Your task to perform on an android device: empty trash in google photos Image 0: 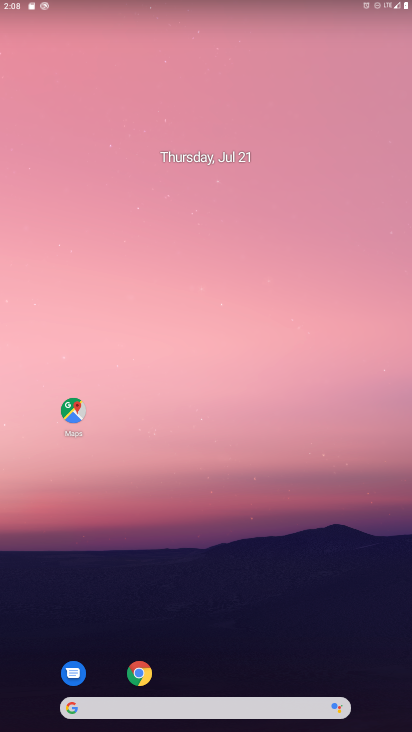
Step 0: drag from (304, 692) to (290, 260)
Your task to perform on an android device: empty trash in google photos Image 1: 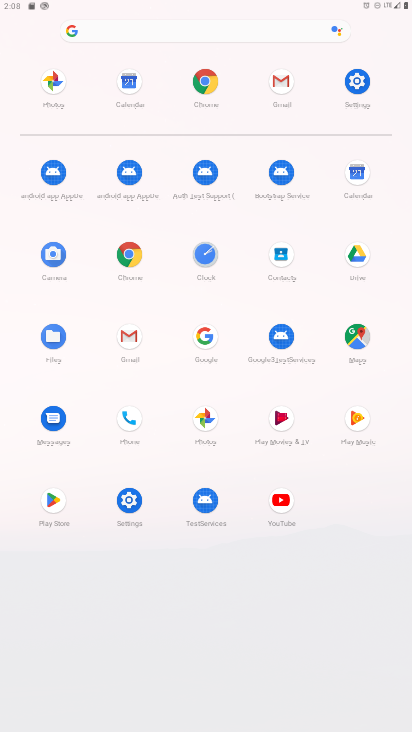
Step 1: click (203, 423)
Your task to perform on an android device: empty trash in google photos Image 2: 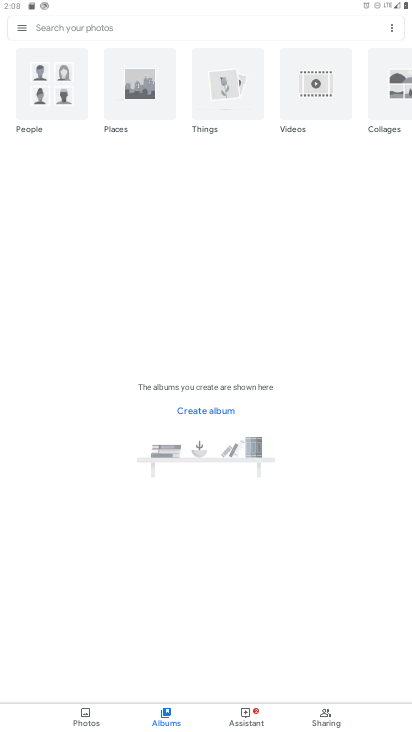
Step 2: click (26, 23)
Your task to perform on an android device: empty trash in google photos Image 3: 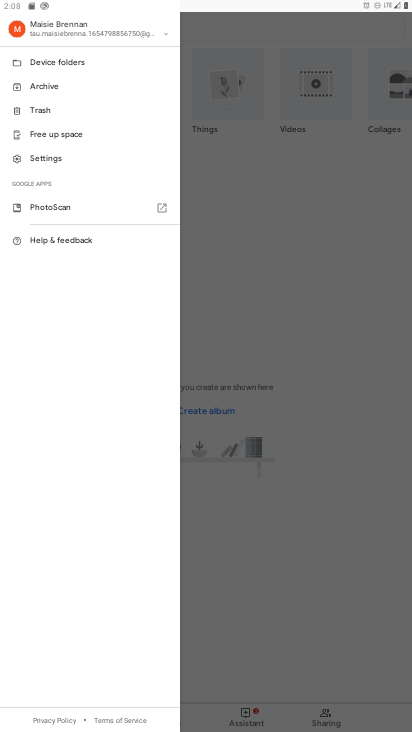
Step 3: click (55, 115)
Your task to perform on an android device: empty trash in google photos Image 4: 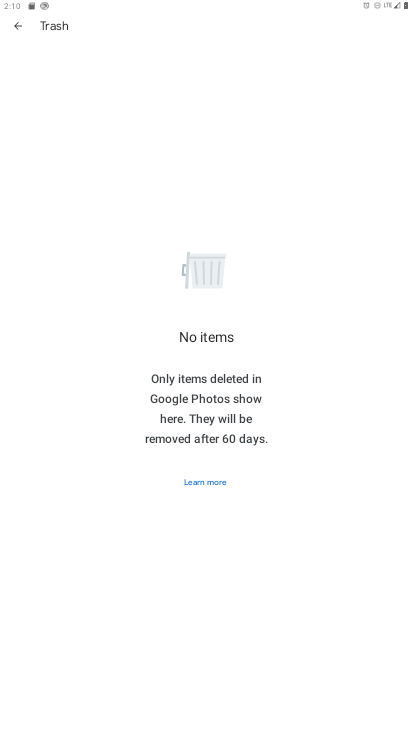
Step 4: task complete